Your task to perform on an android device: allow notifications from all sites in the chrome app Image 0: 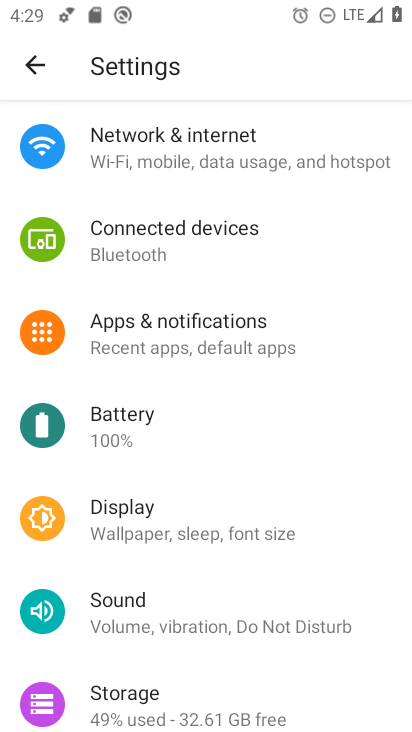
Step 0: press home button
Your task to perform on an android device: allow notifications from all sites in the chrome app Image 1: 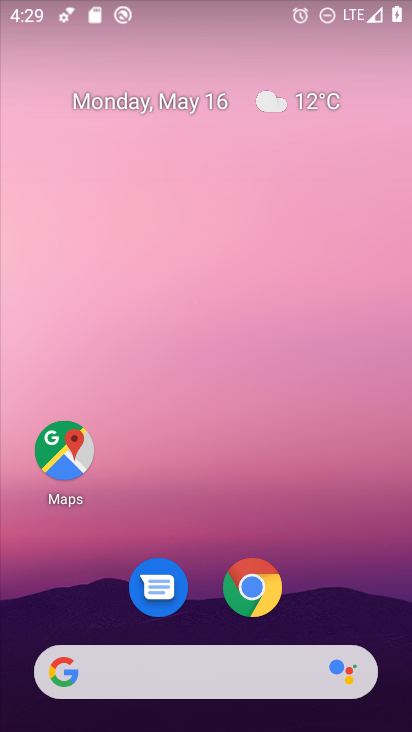
Step 1: click (251, 573)
Your task to perform on an android device: allow notifications from all sites in the chrome app Image 2: 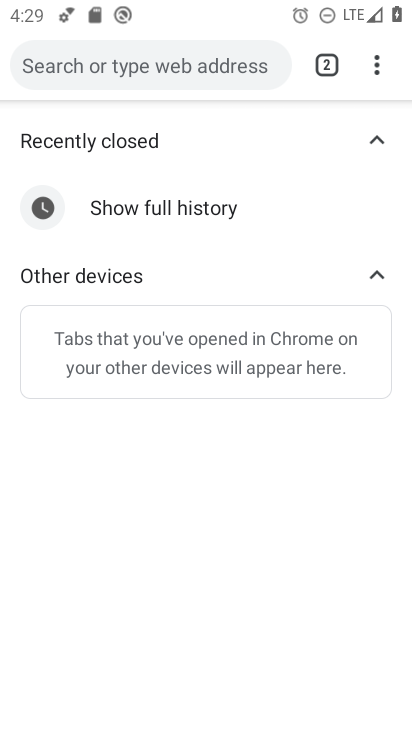
Step 2: click (375, 56)
Your task to perform on an android device: allow notifications from all sites in the chrome app Image 3: 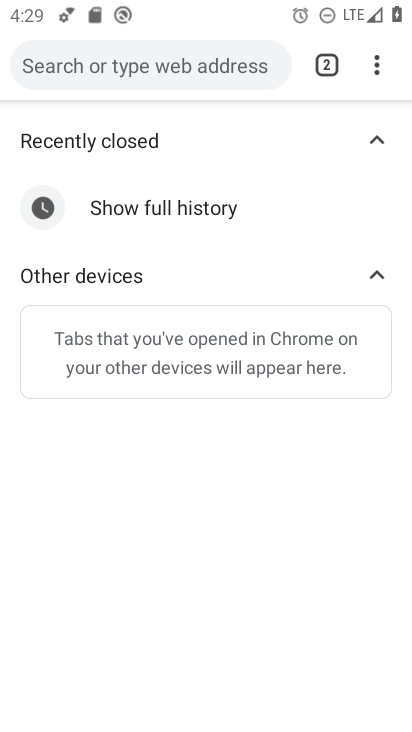
Step 3: click (375, 56)
Your task to perform on an android device: allow notifications from all sites in the chrome app Image 4: 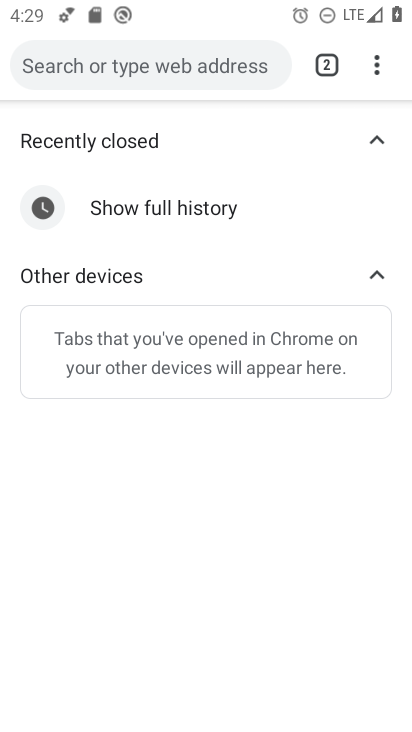
Step 4: click (375, 56)
Your task to perform on an android device: allow notifications from all sites in the chrome app Image 5: 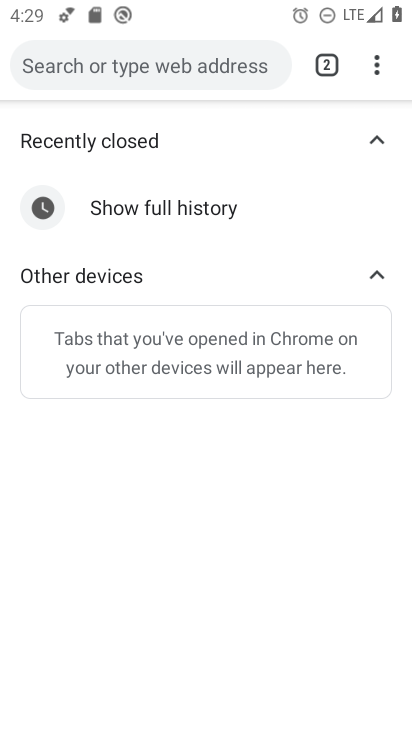
Step 5: click (375, 63)
Your task to perform on an android device: allow notifications from all sites in the chrome app Image 6: 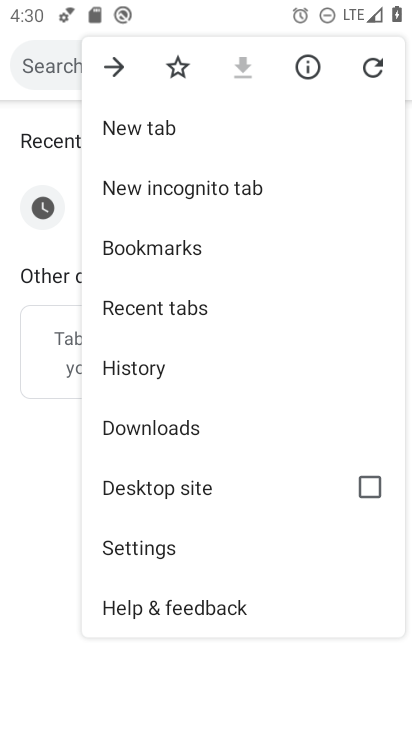
Step 6: click (132, 560)
Your task to perform on an android device: allow notifications from all sites in the chrome app Image 7: 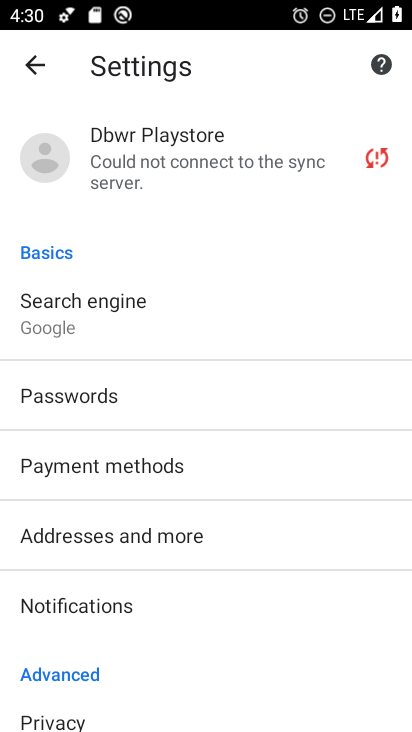
Step 7: drag from (228, 665) to (221, 370)
Your task to perform on an android device: allow notifications from all sites in the chrome app Image 8: 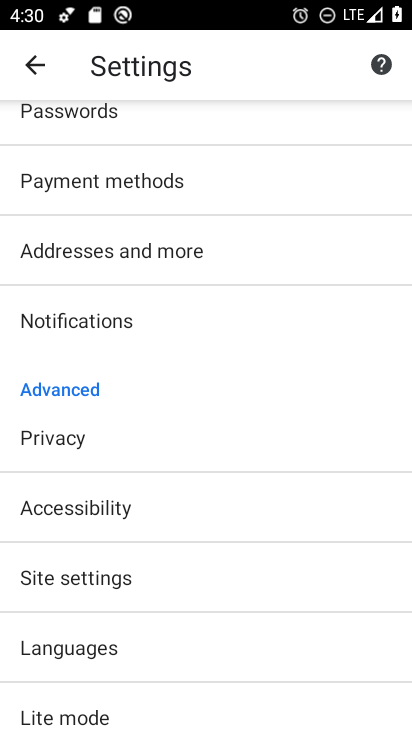
Step 8: click (96, 578)
Your task to perform on an android device: allow notifications from all sites in the chrome app Image 9: 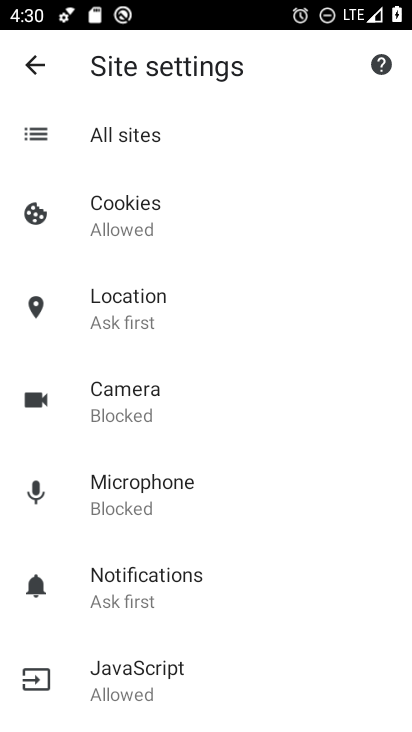
Step 9: click (123, 582)
Your task to perform on an android device: allow notifications from all sites in the chrome app Image 10: 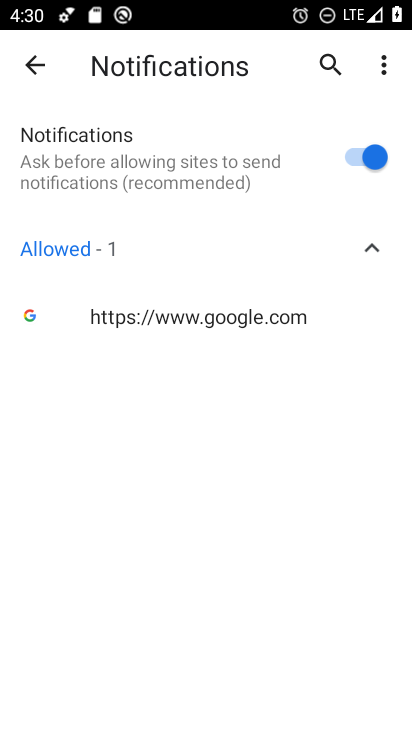
Step 10: task complete